Your task to perform on an android device: open sync settings in chrome Image 0: 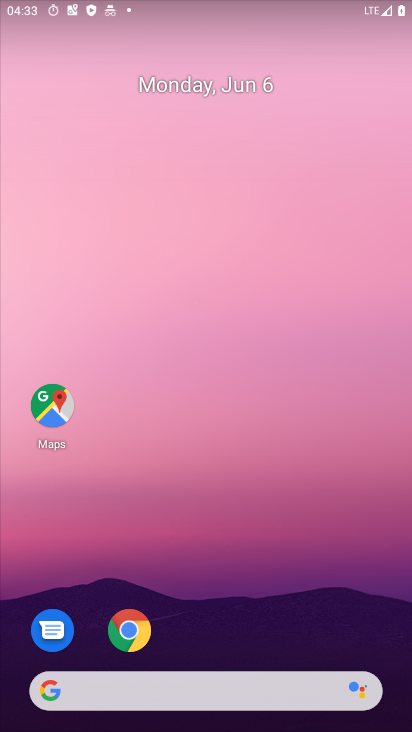
Step 0: drag from (264, 589) to (205, 56)
Your task to perform on an android device: open sync settings in chrome Image 1: 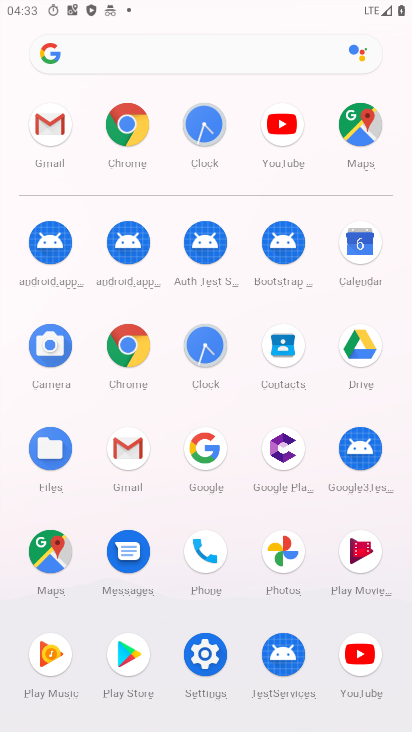
Step 1: click (120, 340)
Your task to perform on an android device: open sync settings in chrome Image 2: 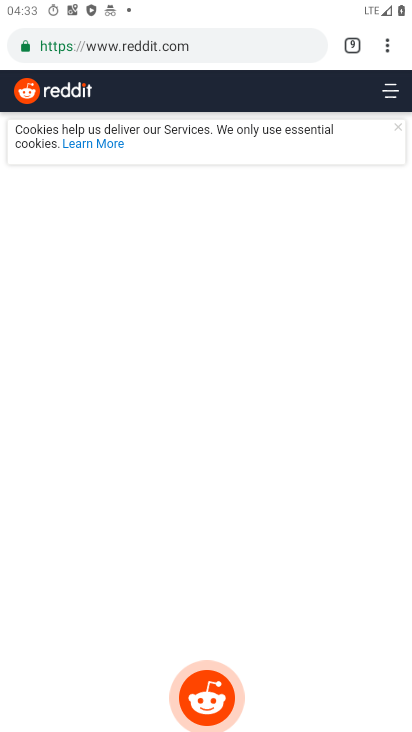
Step 2: drag from (387, 52) to (237, 560)
Your task to perform on an android device: open sync settings in chrome Image 3: 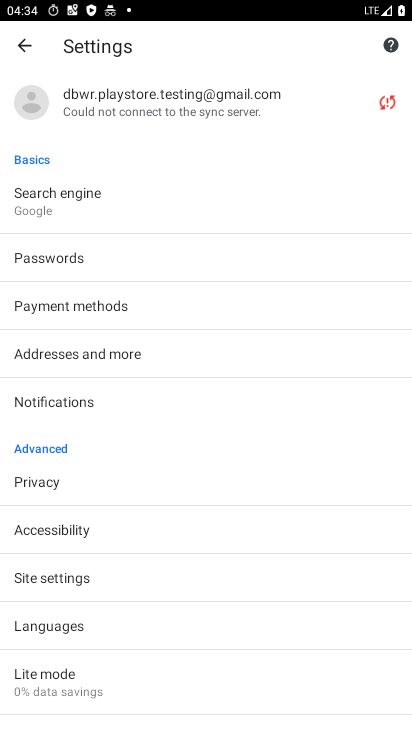
Step 3: click (85, 110)
Your task to perform on an android device: open sync settings in chrome Image 4: 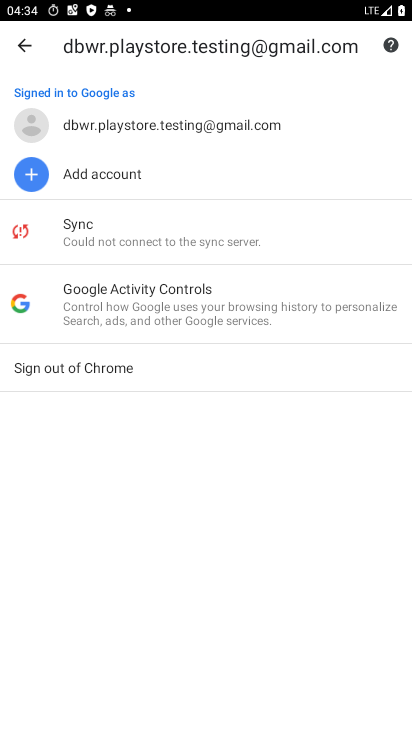
Step 4: click (112, 236)
Your task to perform on an android device: open sync settings in chrome Image 5: 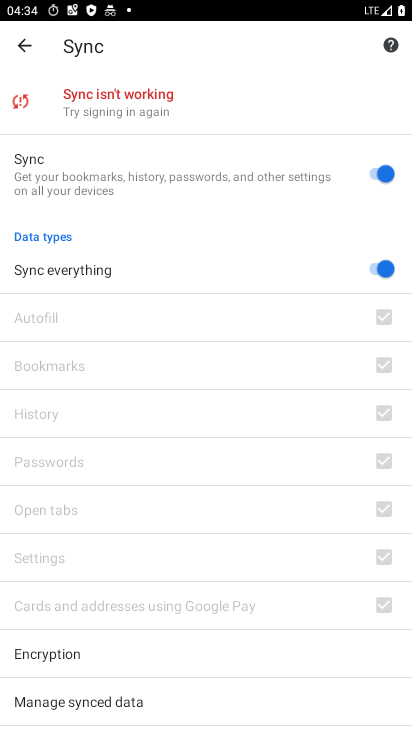
Step 5: task complete